Your task to perform on an android device: Go to Maps Image 0: 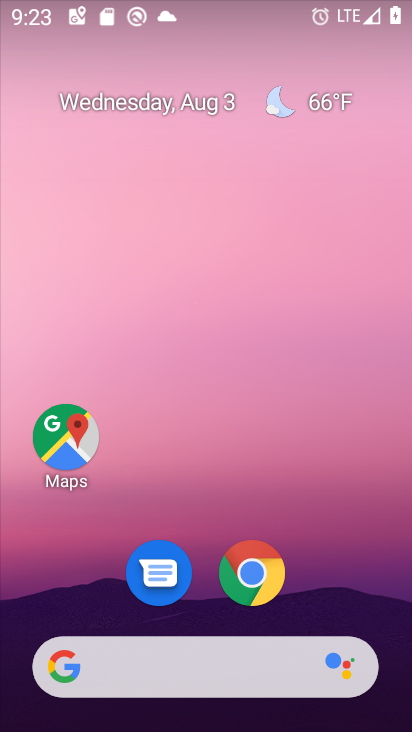
Step 0: click (62, 446)
Your task to perform on an android device: Go to Maps Image 1: 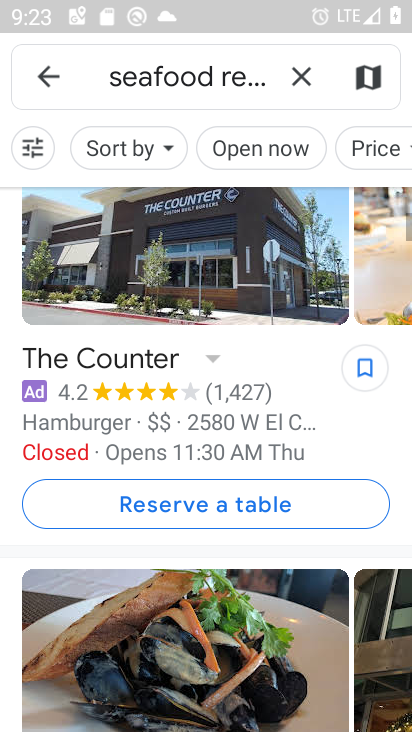
Step 1: task complete